Your task to perform on an android device: What's the weather going to be this weekend? Image 0: 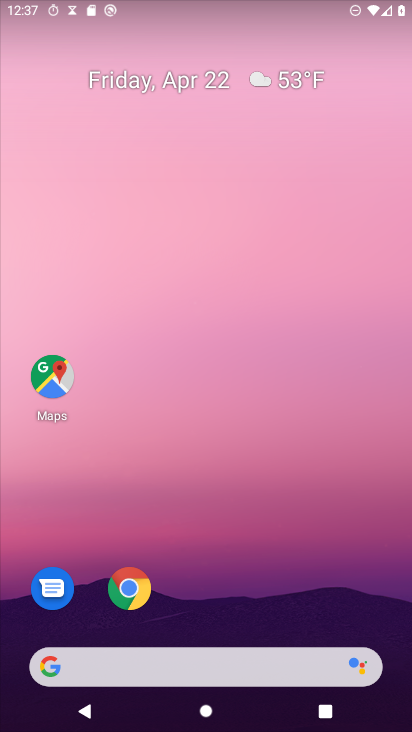
Step 0: drag from (312, 605) to (324, 139)
Your task to perform on an android device: What's the weather going to be this weekend? Image 1: 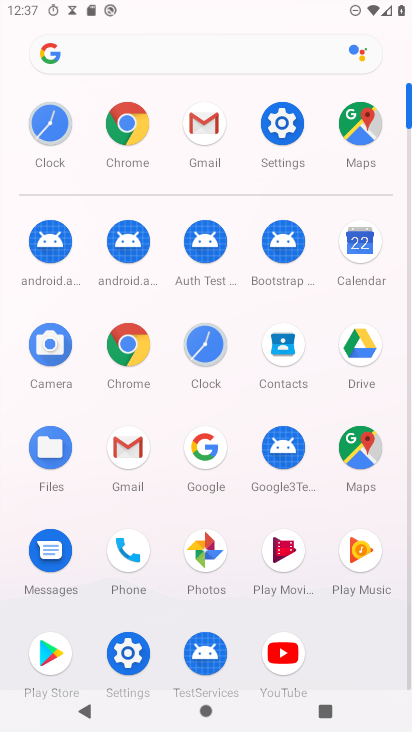
Step 1: click (215, 60)
Your task to perform on an android device: What's the weather going to be this weekend? Image 2: 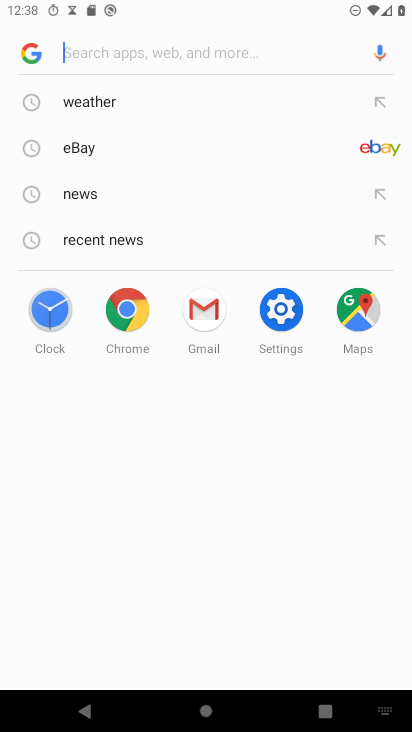
Step 2: type "what's the weather going to be this weekend "
Your task to perform on an android device: What's the weather going to be this weekend? Image 3: 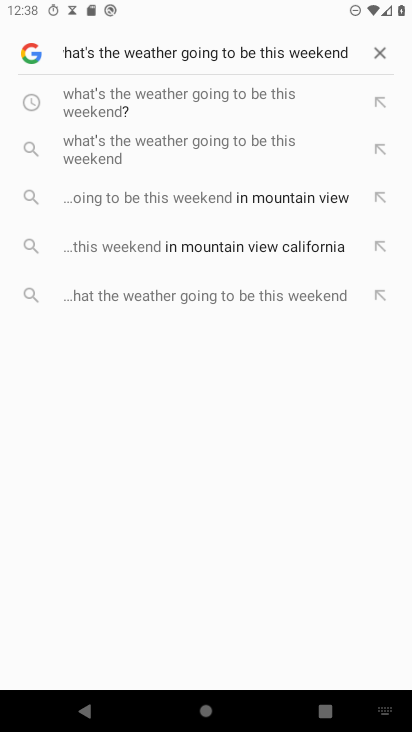
Step 3: click (143, 108)
Your task to perform on an android device: What's the weather going to be this weekend? Image 4: 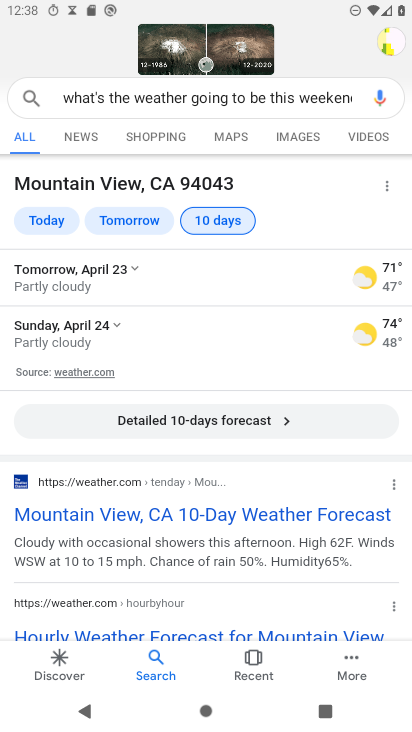
Step 4: task complete